Your task to perform on an android device: Find coffee shops on Maps Image 0: 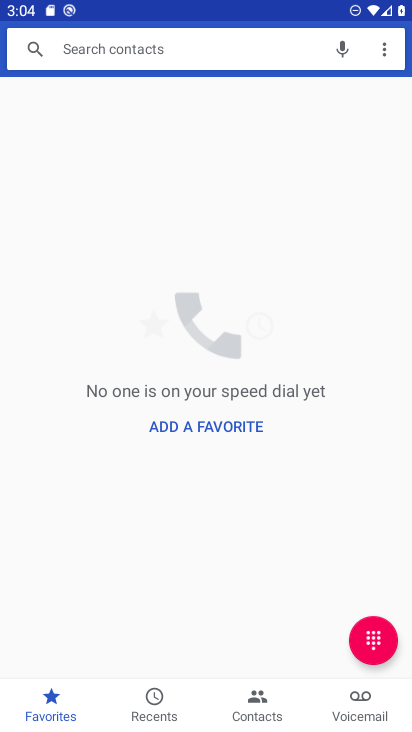
Step 0: press back button
Your task to perform on an android device: Find coffee shops on Maps Image 1: 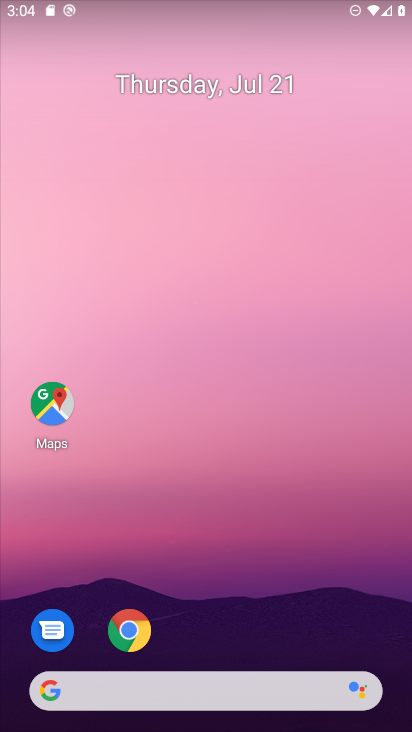
Step 1: click (60, 395)
Your task to perform on an android device: Find coffee shops on Maps Image 2: 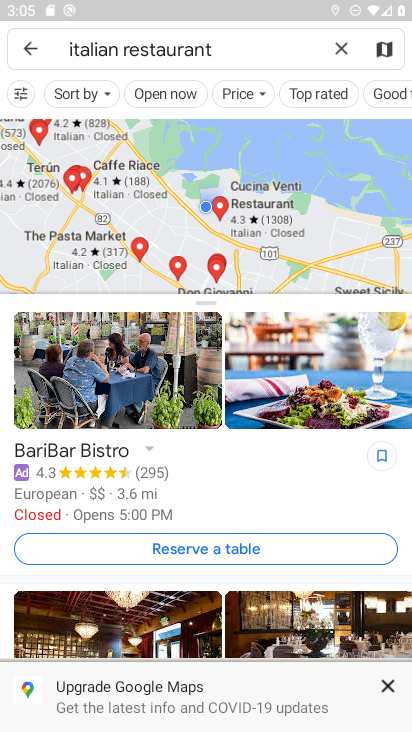
Step 2: click (341, 44)
Your task to perform on an android device: Find coffee shops on Maps Image 3: 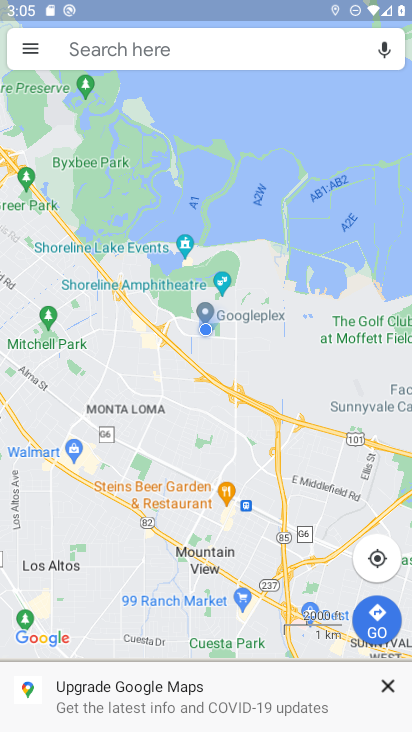
Step 3: click (260, 52)
Your task to perform on an android device: Find coffee shops on Maps Image 4: 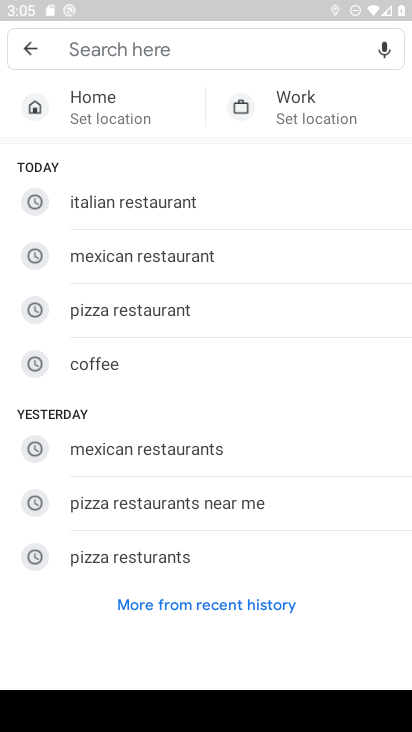
Step 4: click (111, 357)
Your task to perform on an android device: Find coffee shops on Maps Image 5: 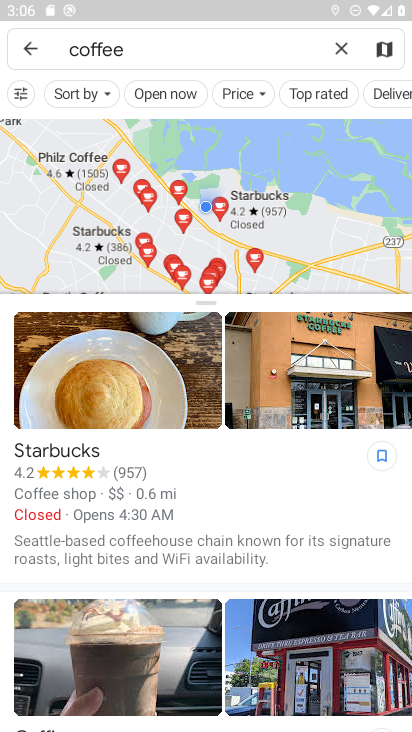
Step 5: task complete